Your task to perform on an android device: Open the web browser Image 0: 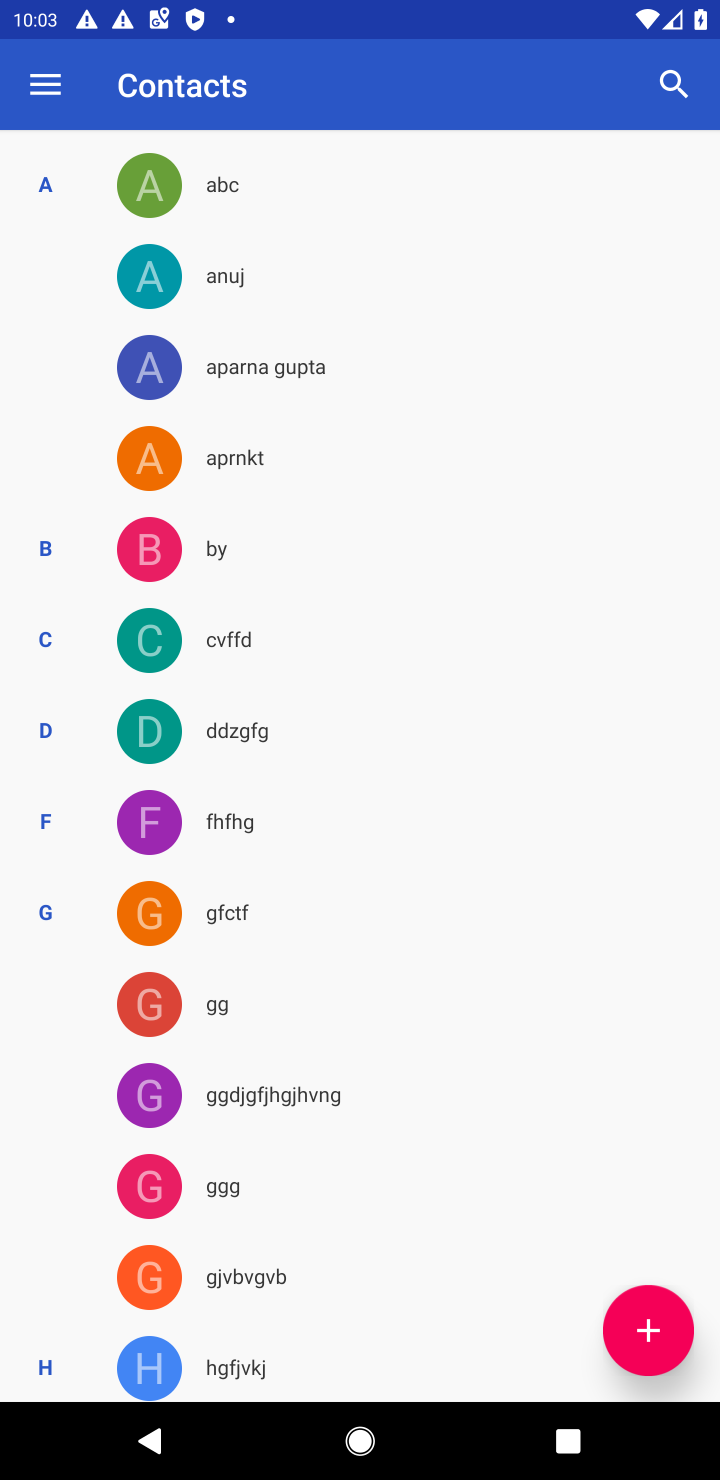
Step 0: press home button
Your task to perform on an android device: Open the web browser Image 1: 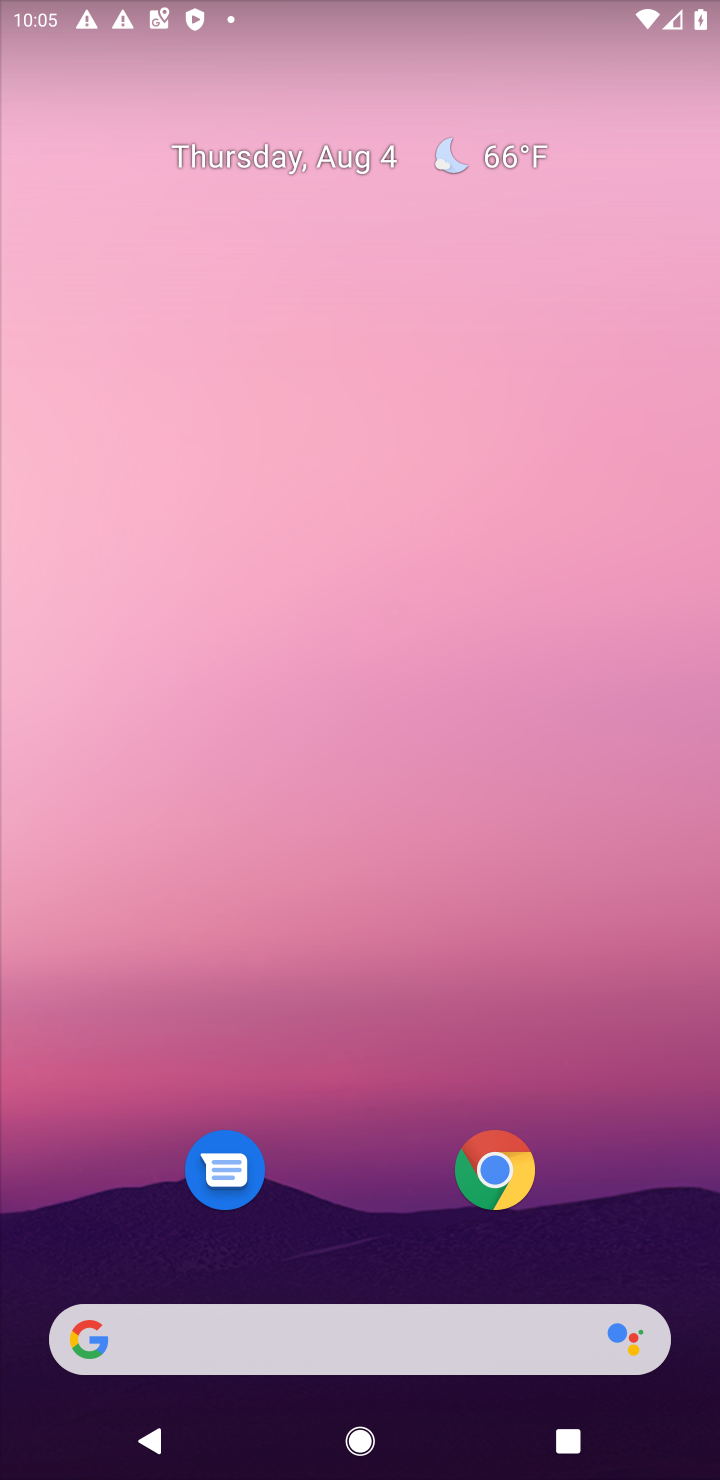
Step 1: drag from (327, 904) to (275, 165)
Your task to perform on an android device: Open the web browser Image 2: 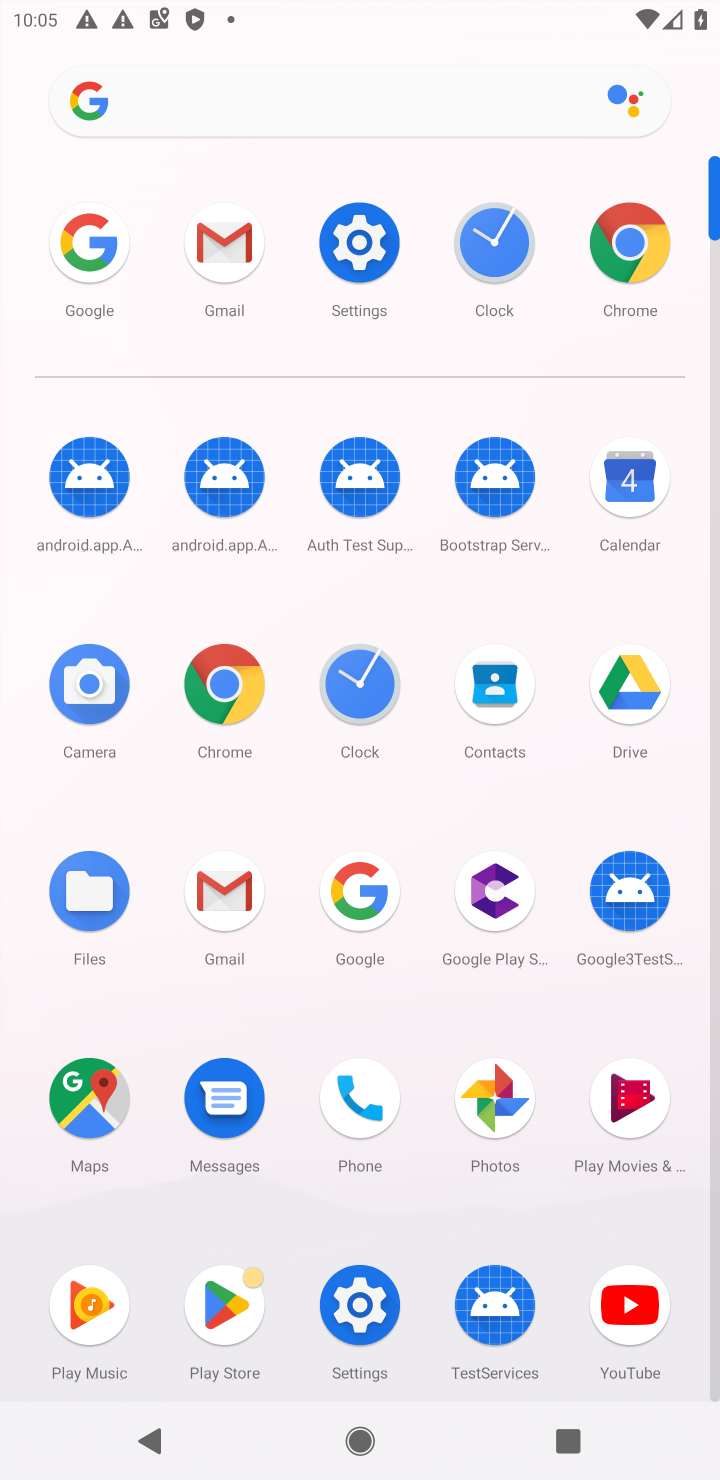
Step 2: click (238, 702)
Your task to perform on an android device: Open the web browser Image 3: 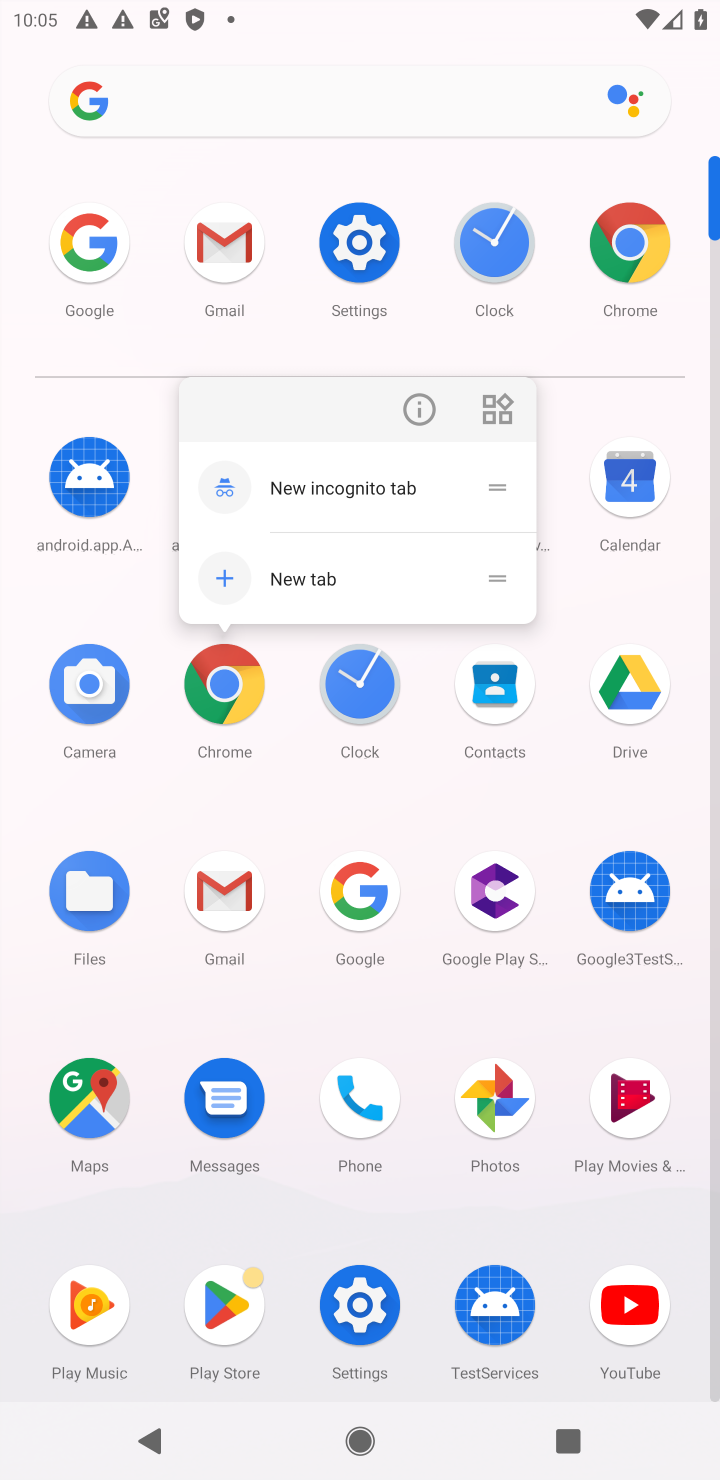
Step 3: click (235, 676)
Your task to perform on an android device: Open the web browser Image 4: 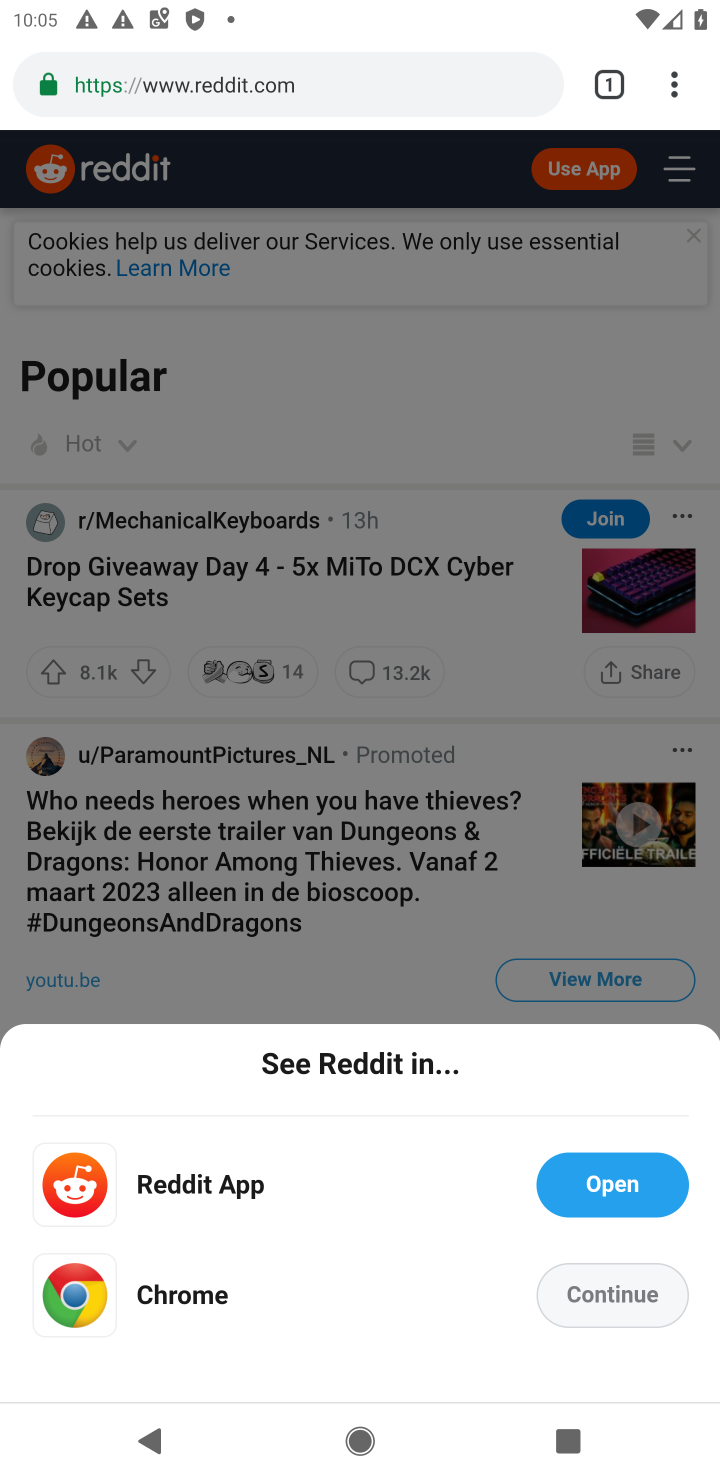
Step 4: task complete